Your task to perform on an android device: Go to Reddit.com Image 0: 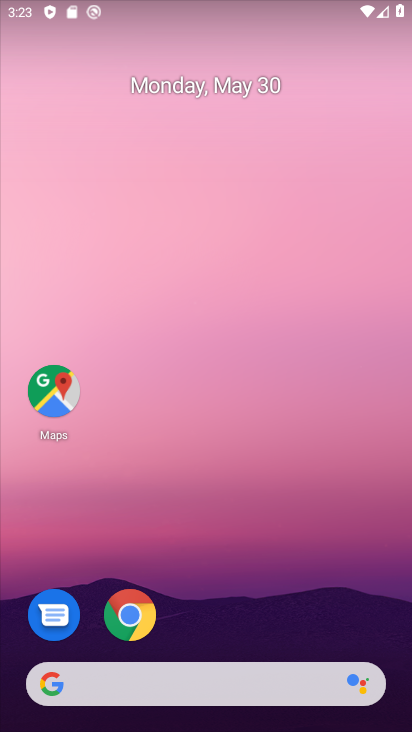
Step 0: click (131, 616)
Your task to perform on an android device: Go to Reddit.com Image 1: 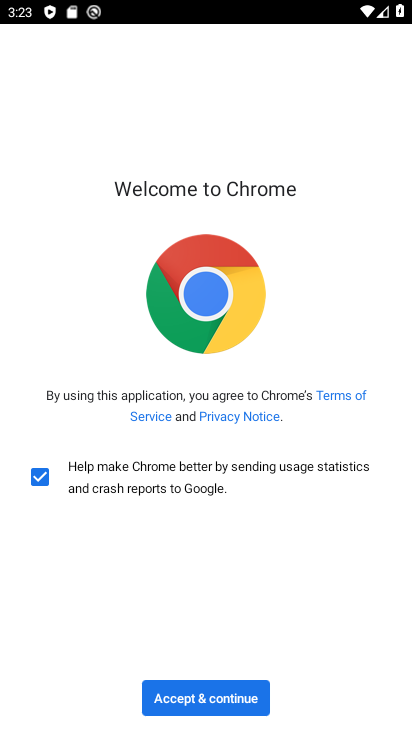
Step 1: click (204, 703)
Your task to perform on an android device: Go to Reddit.com Image 2: 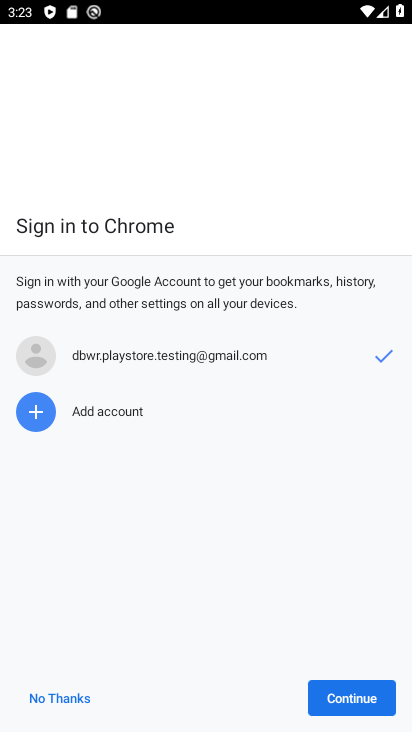
Step 2: click (343, 700)
Your task to perform on an android device: Go to Reddit.com Image 3: 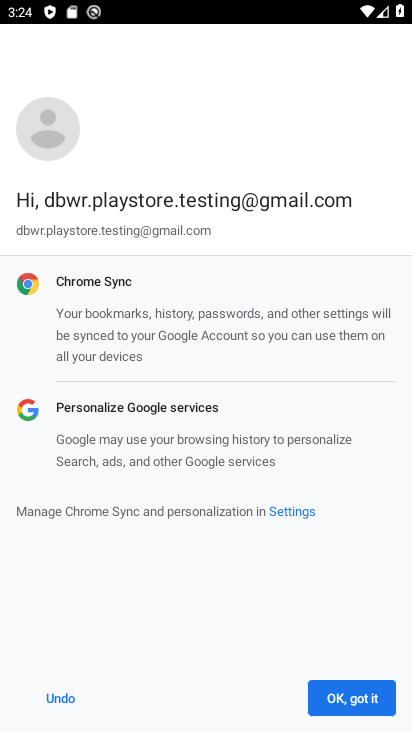
Step 3: click (343, 700)
Your task to perform on an android device: Go to Reddit.com Image 4: 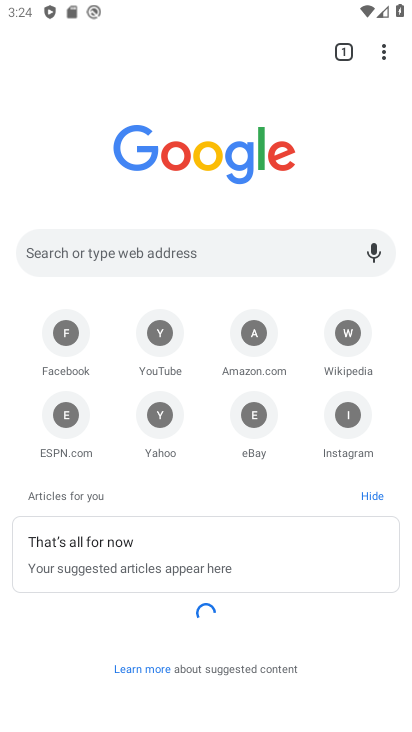
Step 4: click (199, 249)
Your task to perform on an android device: Go to Reddit.com Image 5: 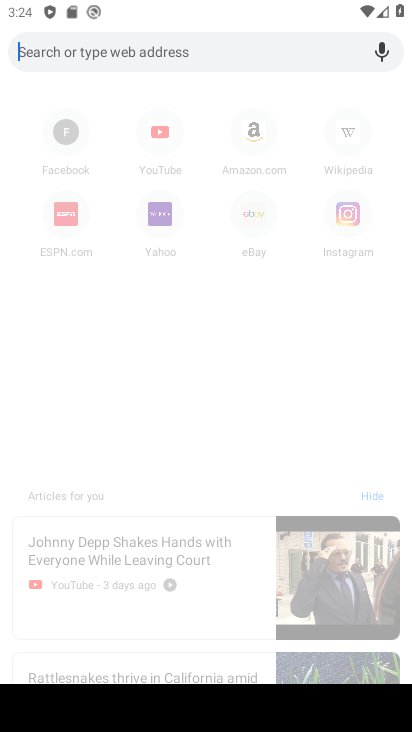
Step 5: type "Reddit.com"
Your task to perform on an android device: Go to Reddit.com Image 6: 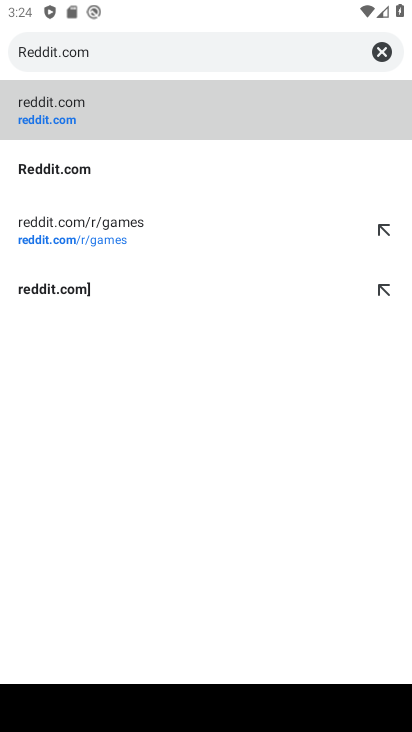
Step 6: click (67, 165)
Your task to perform on an android device: Go to Reddit.com Image 7: 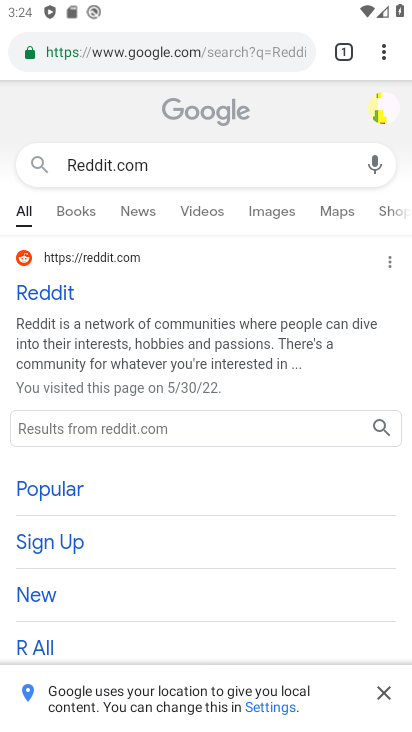
Step 7: click (54, 296)
Your task to perform on an android device: Go to Reddit.com Image 8: 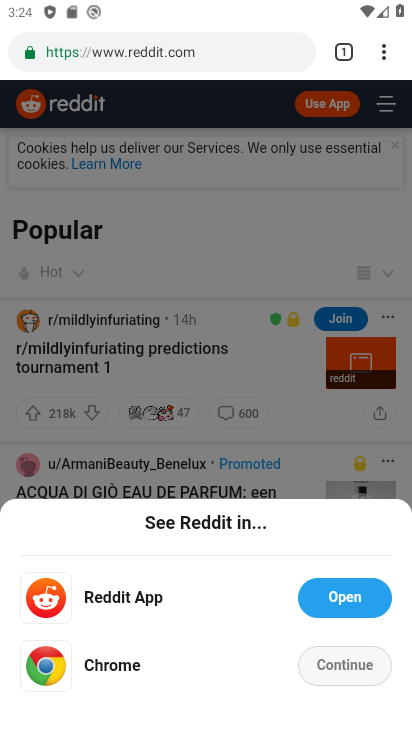
Step 8: click (331, 665)
Your task to perform on an android device: Go to Reddit.com Image 9: 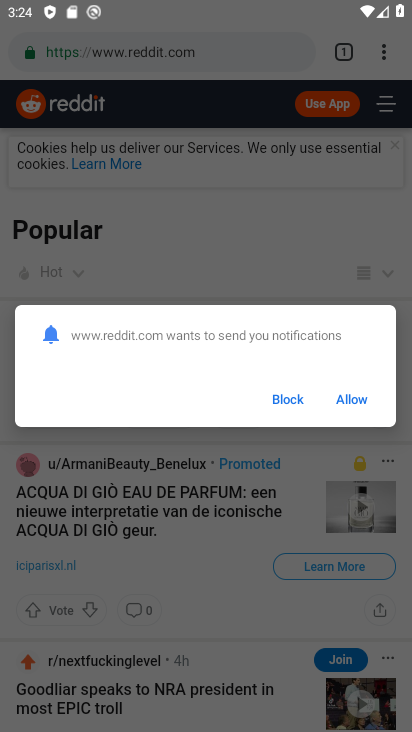
Step 9: click (357, 409)
Your task to perform on an android device: Go to Reddit.com Image 10: 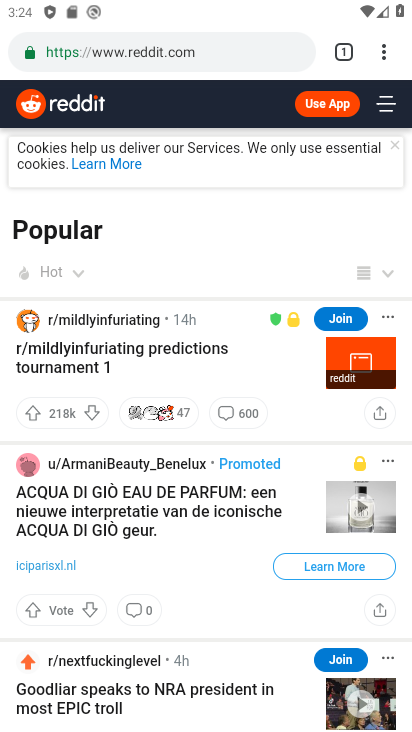
Step 10: task complete